Your task to perform on an android device: Open notification settings Image 0: 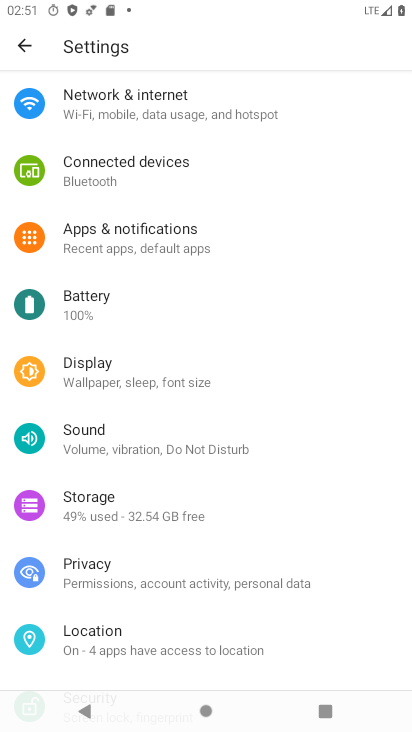
Step 0: click (159, 231)
Your task to perform on an android device: Open notification settings Image 1: 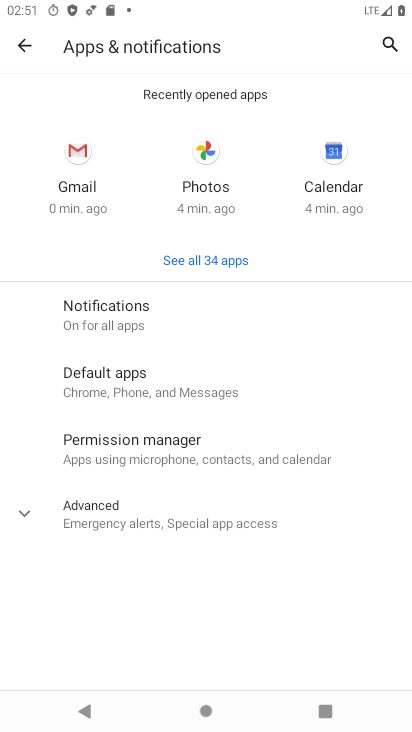
Step 1: click (113, 314)
Your task to perform on an android device: Open notification settings Image 2: 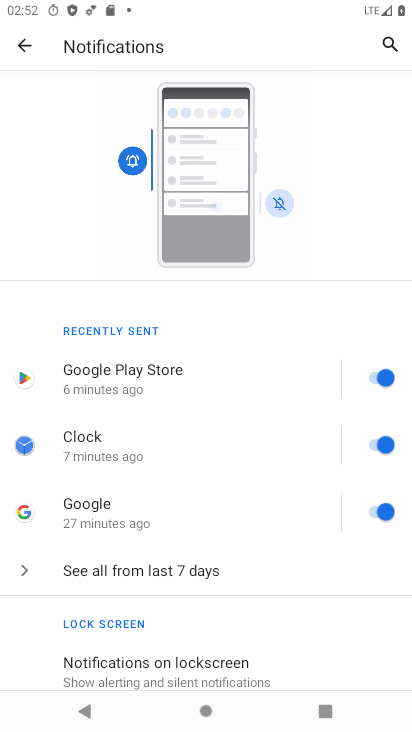
Step 2: drag from (261, 651) to (305, 373)
Your task to perform on an android device: Open notification settings Image 3: 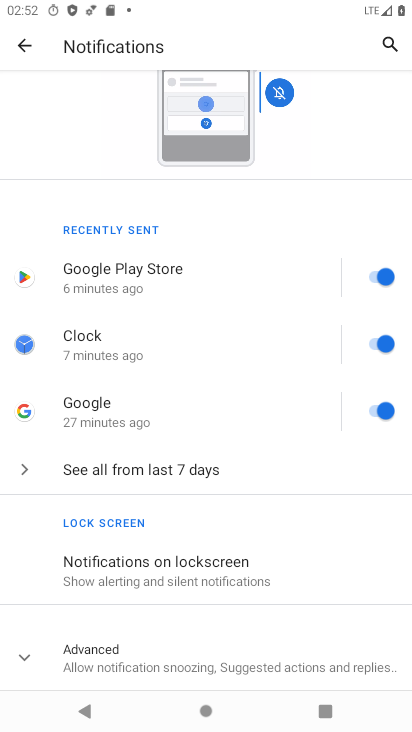
Step 3: click (85, 647)
Your task to perform on an android device: Open notification settings Image 4: 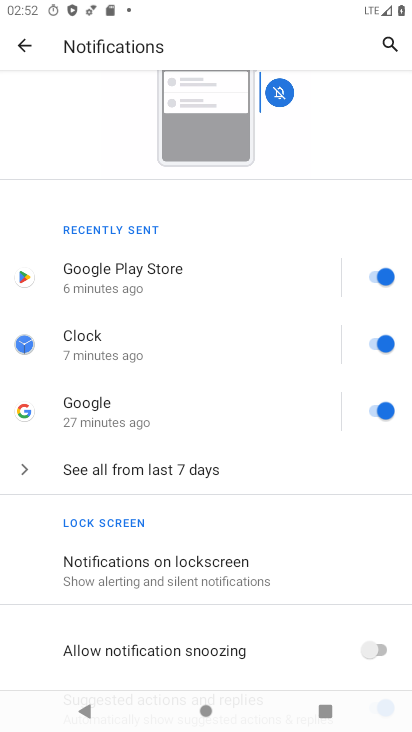
Step 4: task complete